Your task to perform on an android device: turn on improve location accuracy Image 0: 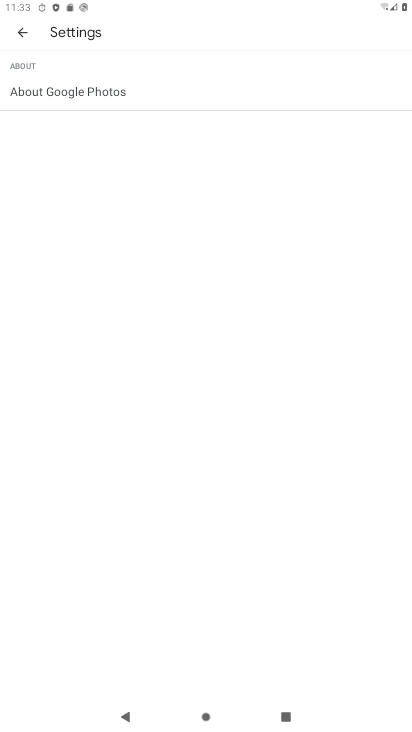
Step 0: press home button
Your task to perform on an android device: turn on improve location accuracy Image 1: 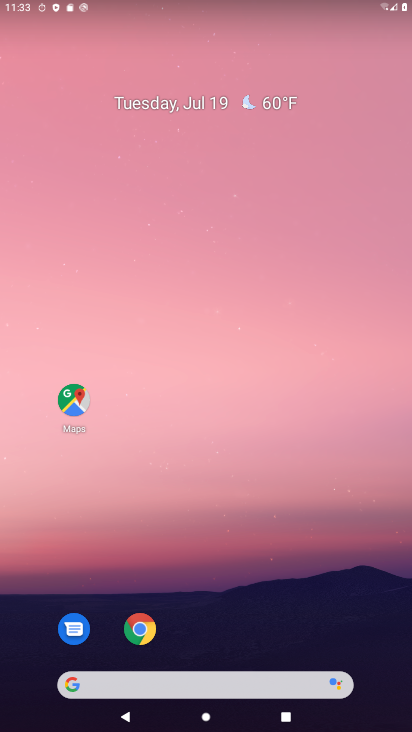
Step 1: drag from (309, 618) to (309, 132)
Your task to perform on an android device: turn on improve location accuracy Image 2: 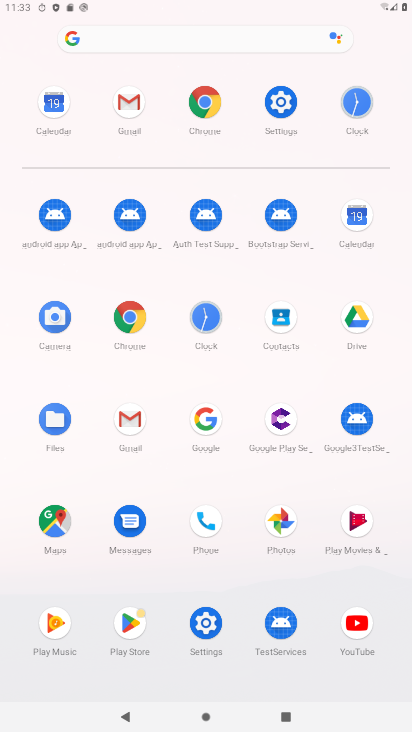
Step 2: click (288, 109)
Your task to perform on an android device: turn on improve location accuracy Image 3: 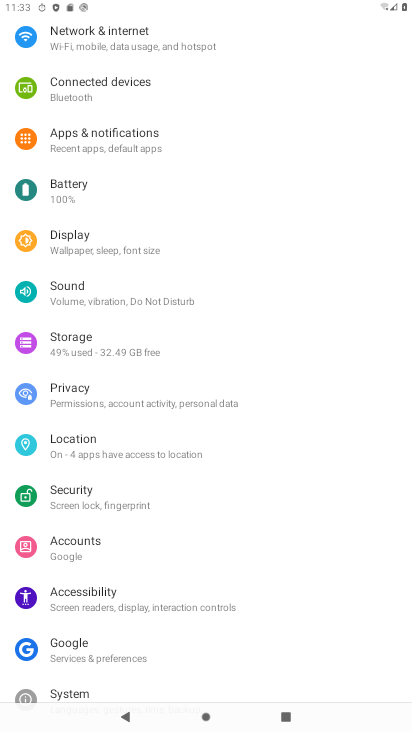
Step 3: click (127, 449)
Your task to perform on an android device: turn on improve location accuracy Image 4: 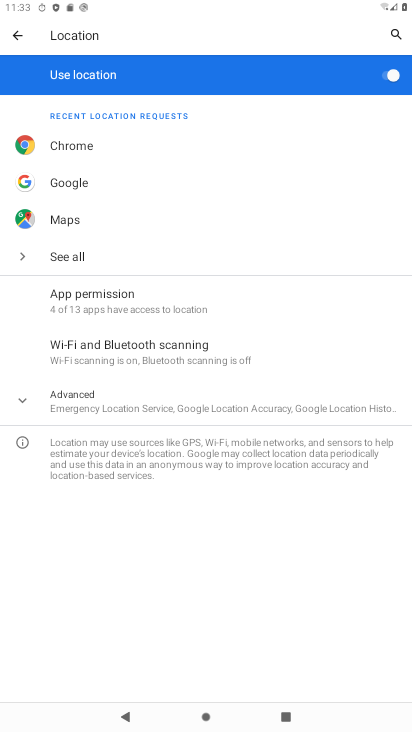
Step 4: click (79, 403)
Your task to perform on an android device: turn on improve location accuracy Image 5: 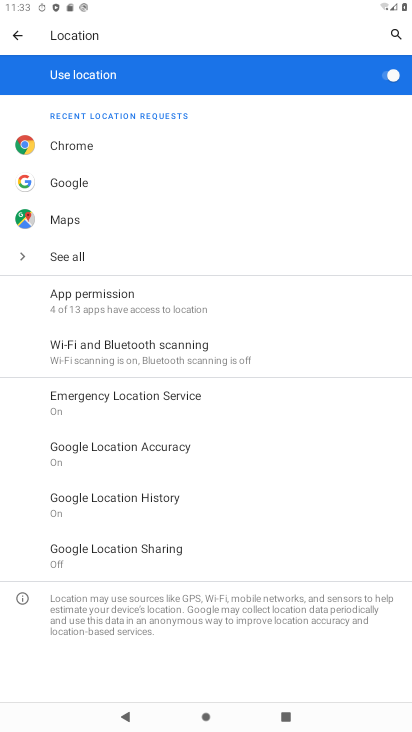
Step 5: click (107, 455)
Your task to perform on an android device: turn on improve location accuracy Image 6: 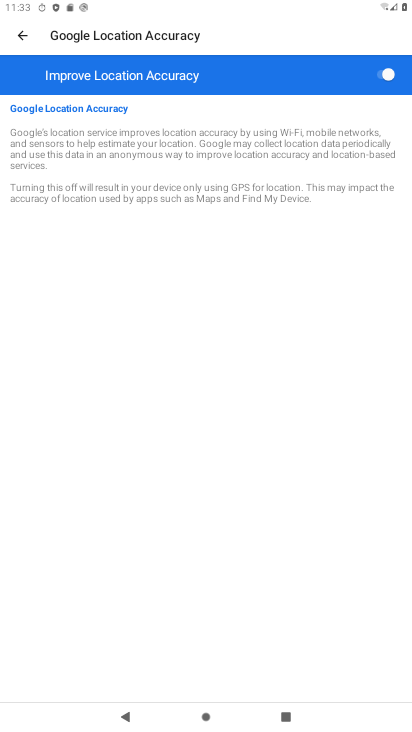
Step 6: task complete